Your task to perform on an android device: Open ESPN.com Image 0: 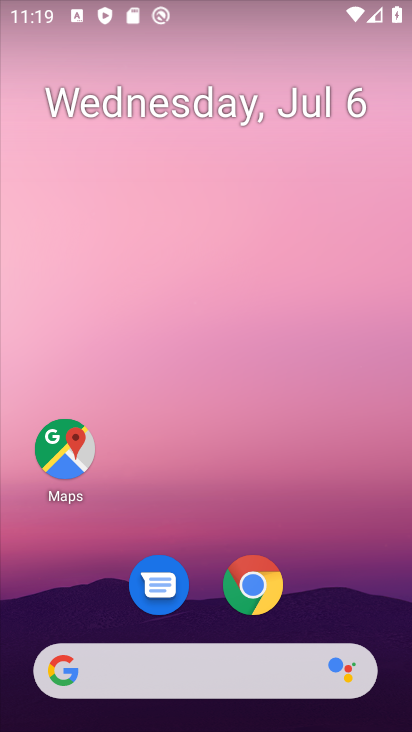
Step 0: click (183, 681)
Your task to perform on an android device: Open ESPN.com Image 1: 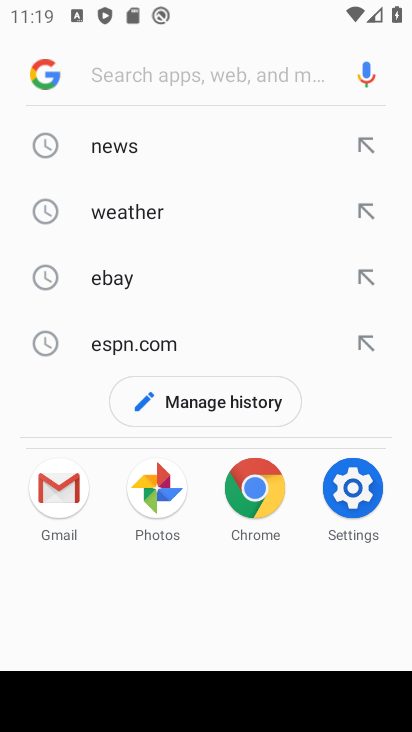
Step 1: click (146, 338)
Your task to perform on an android device: Open ESPN.com Image 2: 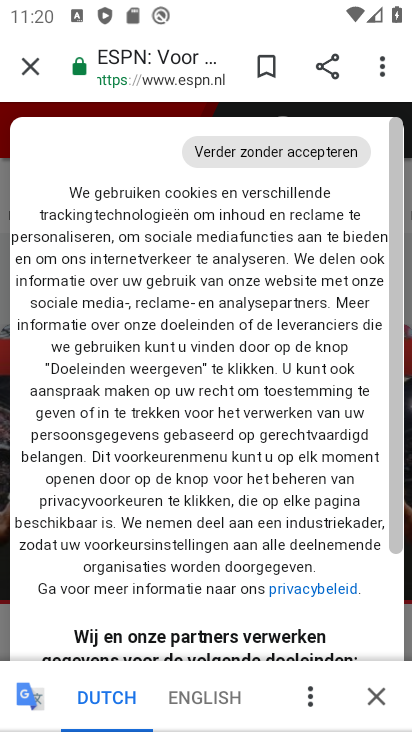
Step 2: task complete